Your task to perform on an android device: Search for Mexican restaurants on Maps Image 0: 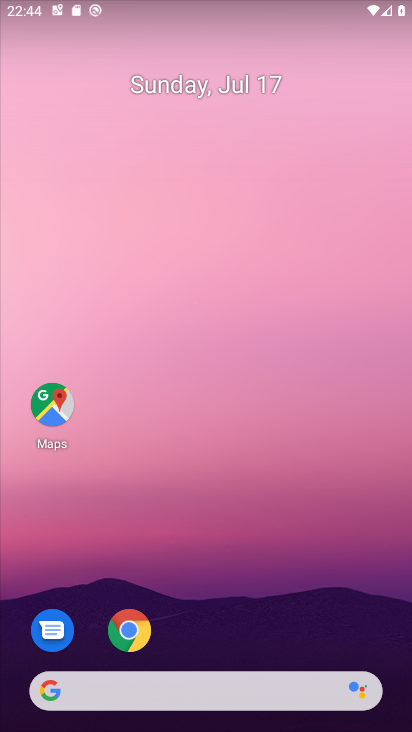
Step 0: drag from (200, 655) to (274, 14)
Your task to perform on an android device: Search for Mexican restaurants on Maps Image 1: 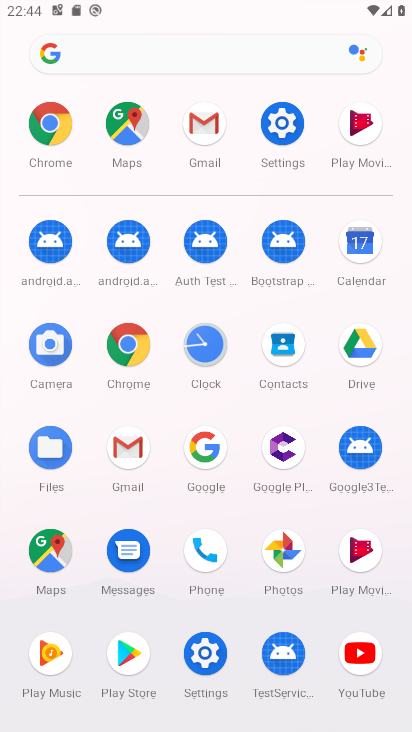
Step 1: click (52, 549)
Your task to perform on an android device: Search for Mexican restaurants on Maps Image 2: 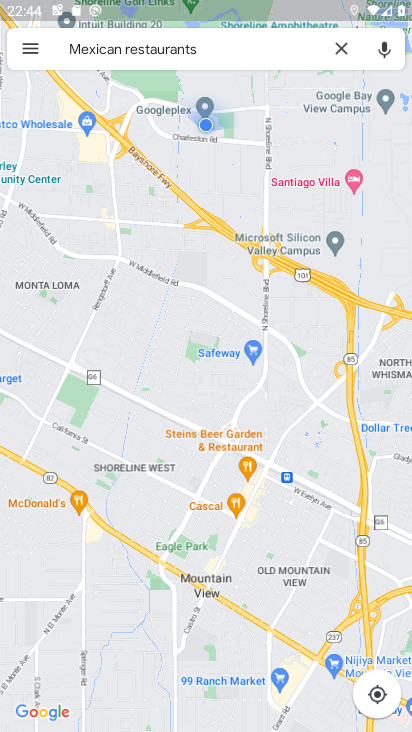
Step 2: click (223, 48)
Your task to perform on an android device: Search for Mexican restaurants on Maps Image 3: 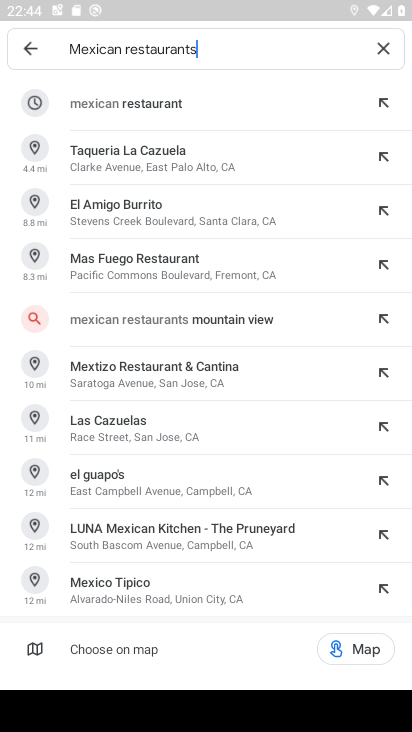
Step 3: click (156, 113)
Your task to perform on an android device: Search for Mexican restaurants on Maps Image 4: 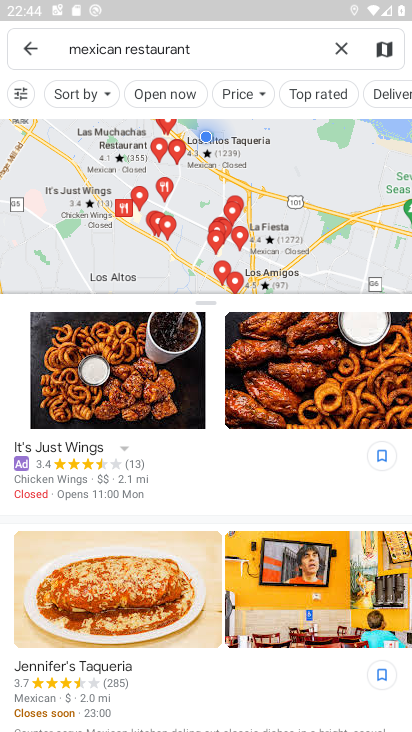
Step 4: task complete